Your task to perform on an android device: turn vacation reply on in the gmail app Image 0: 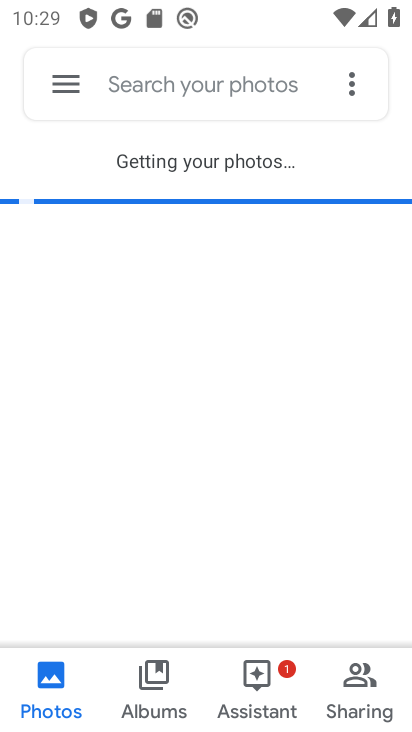
Step 0: press back button
Your task to perform on an android device: turn vacation reply on in the gmail app Image 1: 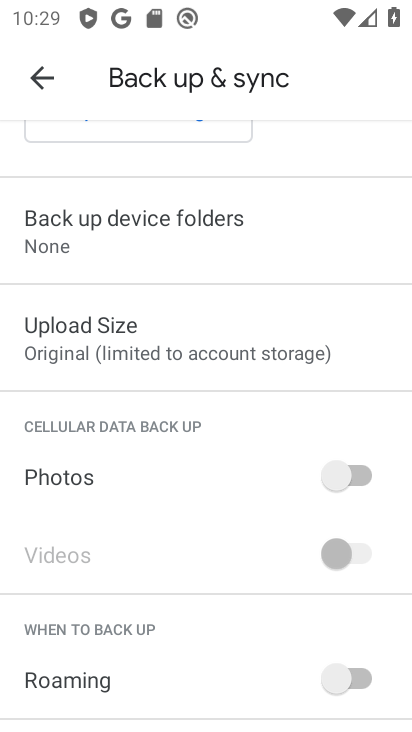
Step 1: click (36, 74)
Your task to perform on an android device: turn vacation reply on in the gmail app Image 2: 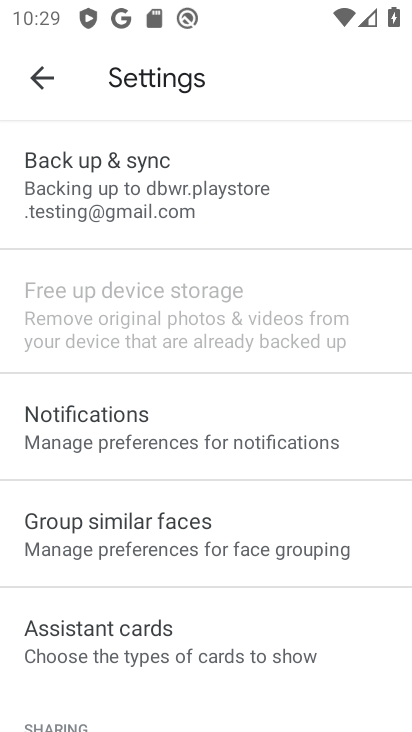
Step 2: click (39, 82)
Your task to perform on an android device: turn vacation reply on in the gmail app Image 3: 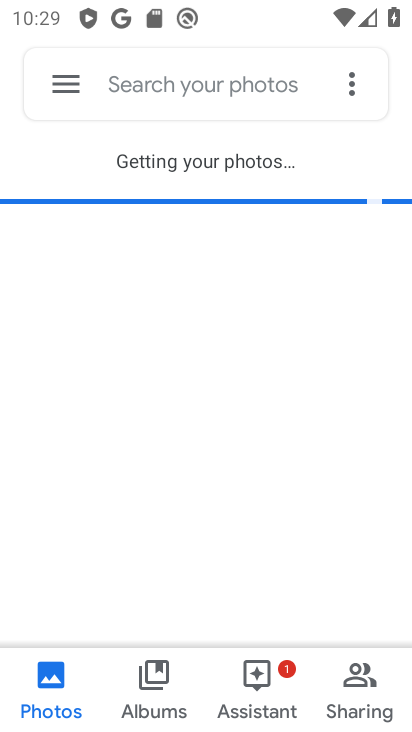
Step 3: press home button
Your task to perform on an android device: turn vacation reply on in the gmail app Image 4: 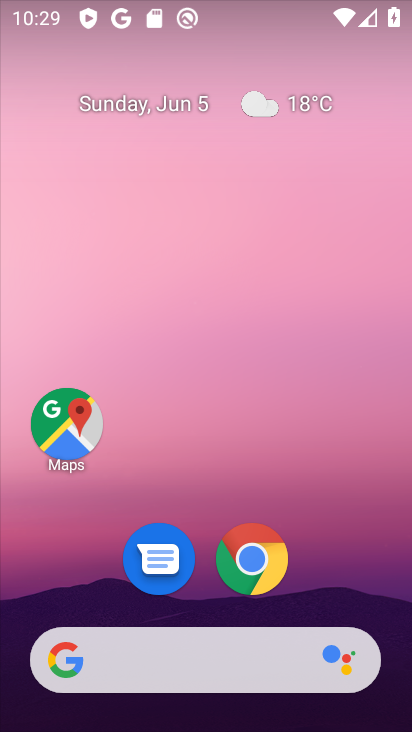
Step 4: press back button
Your task to perform on an android device: turn vacation reply on in the gmail app Image 5: 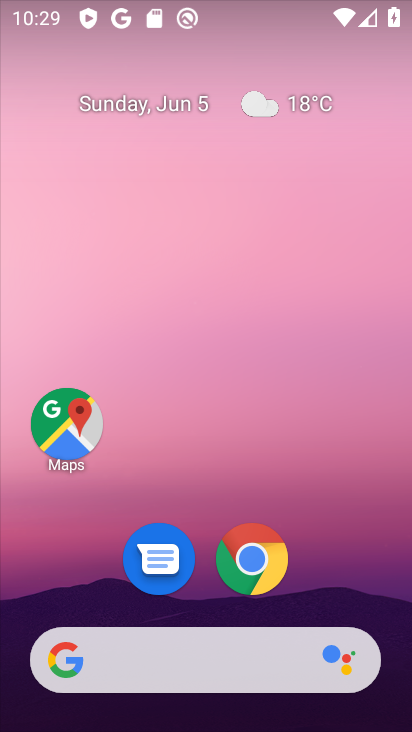
Step 5: drag from (267, 699) to (194, 159)
Your task to perform on an android device: turn vacation reply on in the gmail app Image 6: 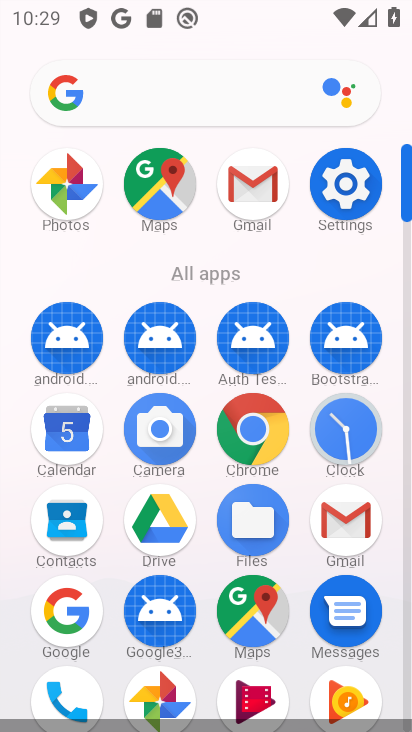
Step 6: click (323, 528)
Your task to perform on an android device: turn vacation reply on in the gmail app Image 7: 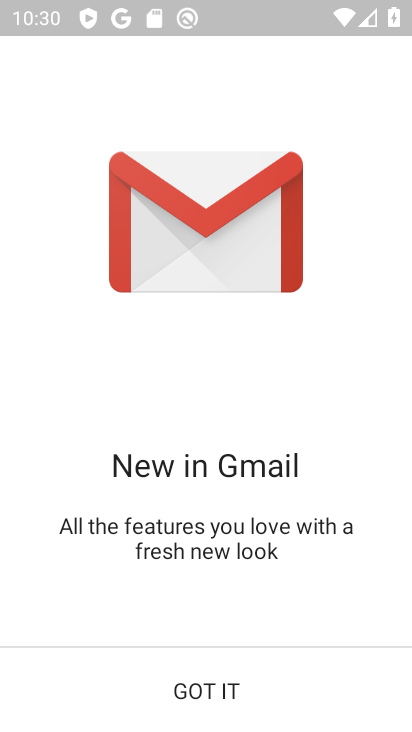
Step 7: click (208, 681)
Your task to perform on an android device: turn vacation reply on in the gmail app Image 8: 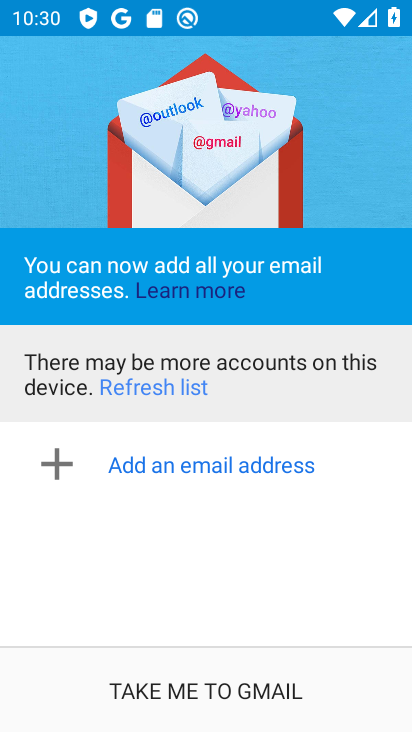
Step 8: click (208, 679)
Your task to perform on an android device: turn vacation reply on in the gmail app Image 9: 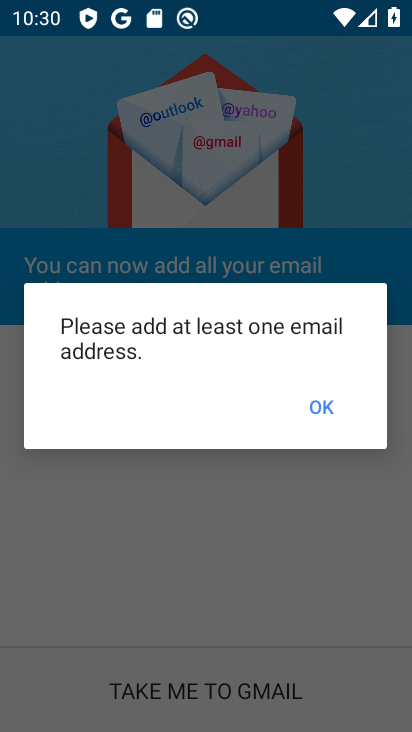
Step 9: click (214, 687)
Your task to perform on an android device: turn vacation reply on in the gmail app Image 10: 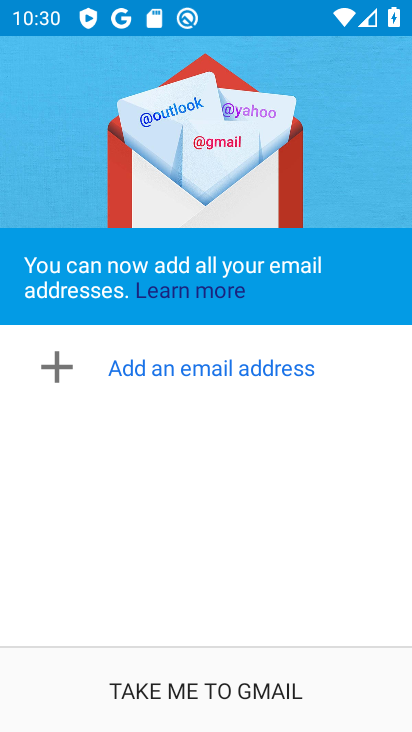
Step 10: click (315, 413)
Your task to perform on an android device: turn vacation reply on in the gmail app Image 11: 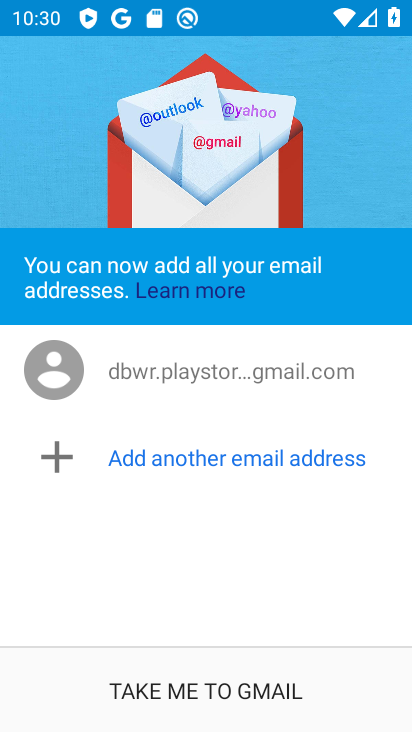
Step 11: click (194, 696)
Your task to perform on an android device: turn vacation reply on in the gmail app Image 12: 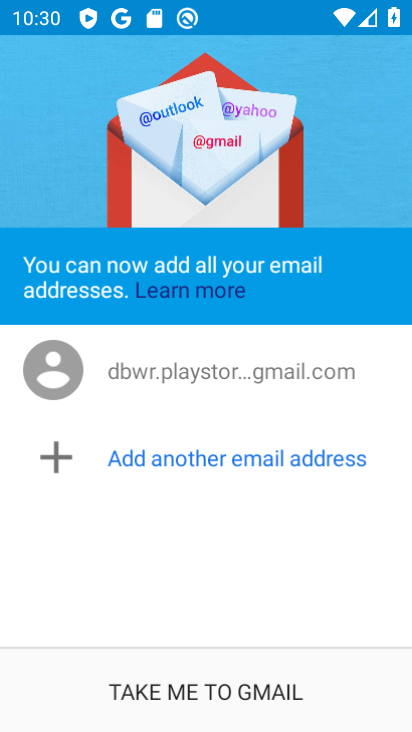
Step 12: click (194, 696)
Your task to perform on an android device: turn vacation reply on in the gmail app Image 13: 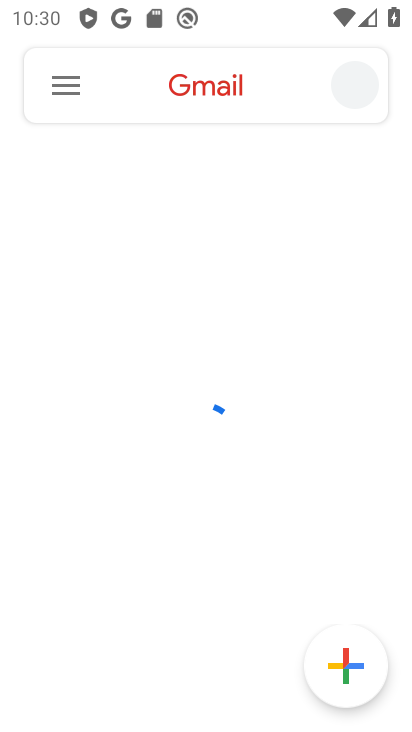
Step 13: click (69, 87)
Your task to perform on an android device: turn vacation reply on in the gmail app Image 14: 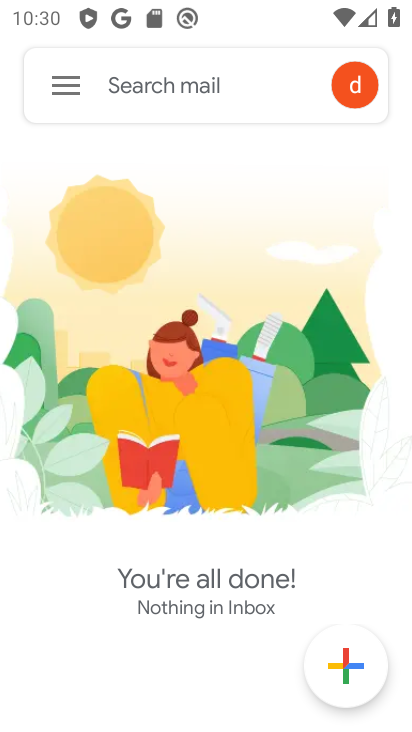
Step 14: click (61, 87)
Your task to perform on an android device: turn vacation reply on in the gmail app Image 15: 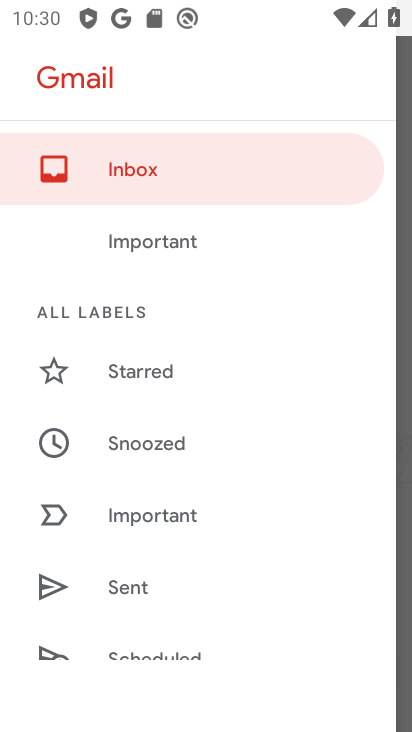
Step 15: drag from (167, 441) to (144, 124)
Your task to perform on an android device: turn vacation reply on in the gmail app Image 16: 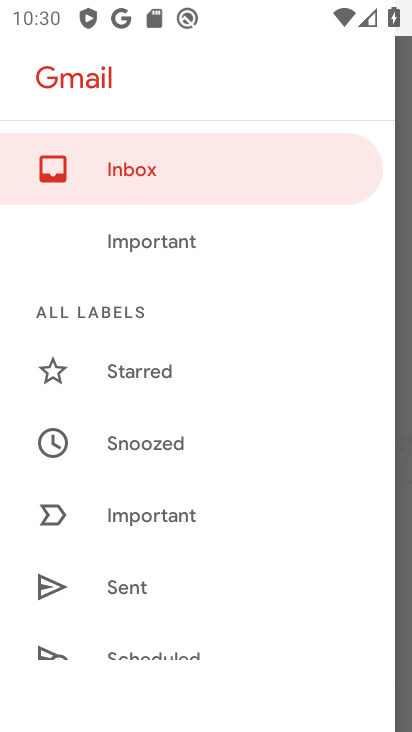
Step 16: drag from (185, 369) to (173, 178)
Your task to perform on an android device: turn vacation reply on in the gmail app Image 17: 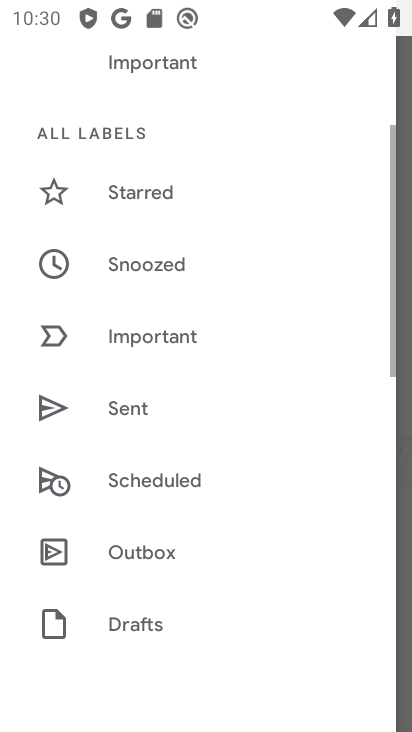
Step 17: drag from (166, 468) to (166, 104)
Your task to perform on an android device: turn vacation reply on in the gmail app Image 18: 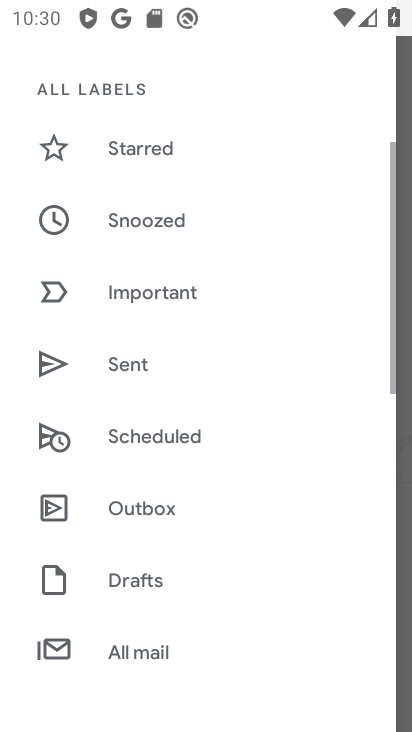
Step 18: drag from (215, 414) to (272, 13)
Your task to perform on an android device: turn vacation reply on in the gmail app Image 19: 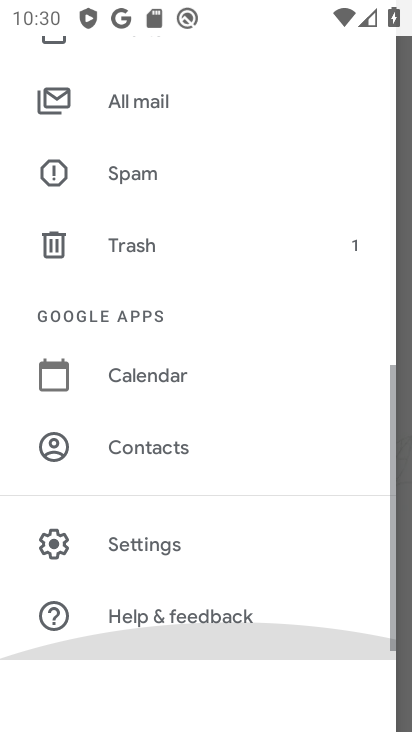
Step 19: drag from (225, 499) to (258, 89)
Your task to perform on an android device: turn vacation reply on in the gmail app Image 20: 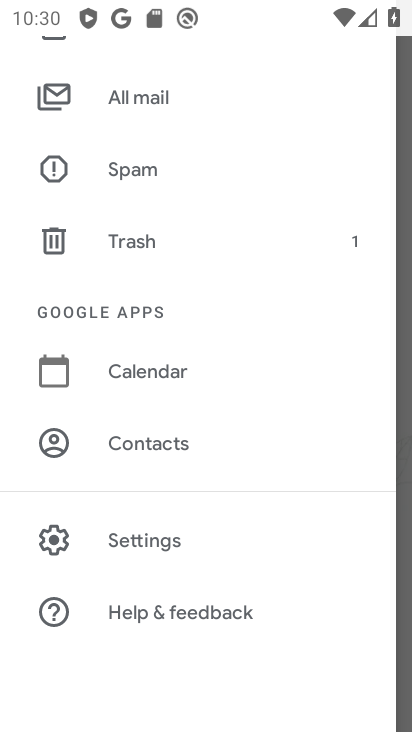
Step 20: click (139, 540)
Your task to perform on an android device: turn vacation reply on in the gmail app Image 21: 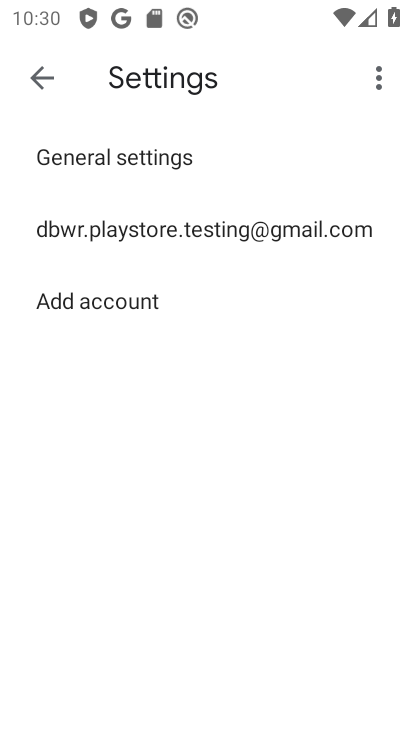
Step 21: click (136, 223)
Your task to perform on an android device: turn vacation reply on in the gmail app Image 22: 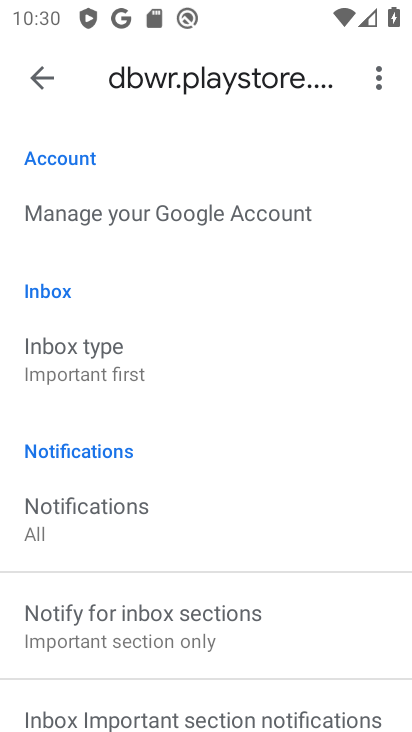
Step 22: drag from (99, 427) to (68, 95)
Your task to perform on an android device: turn vacation reply on in the gmail app Image 23: 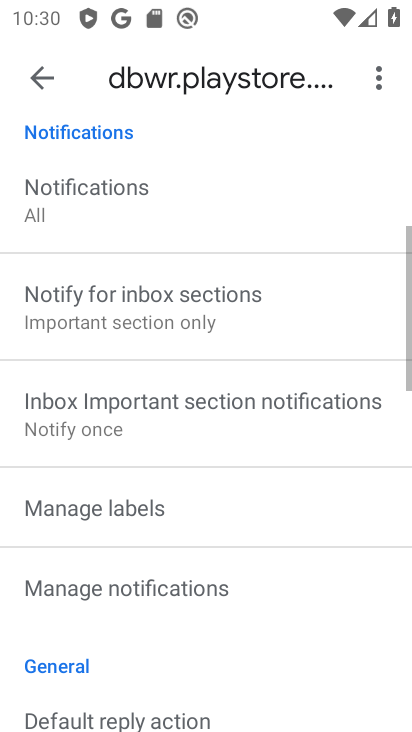
Step 23: drag from (134, 406) to (107, 196)
Your task to perform on an android device: turn vacation reply on in the gmail app Image 24: 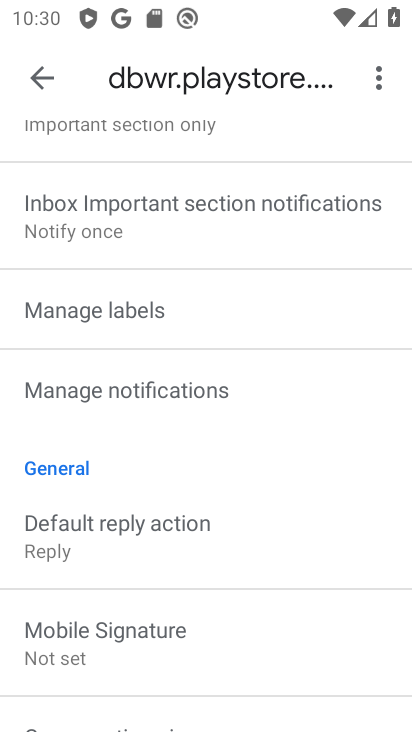
Step 24: drag from (193, 407) to (175, 169)
Your task to perform on an android device: turn vacation reply on in the gmail app Image 25: 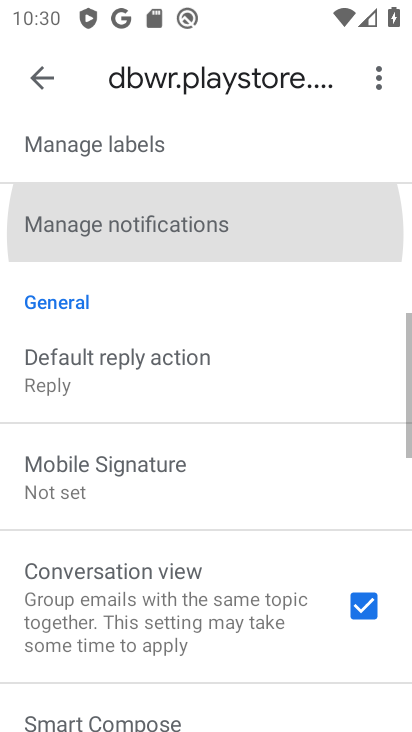
Step 25: drag from (204, 454) to (195, 168)
Your task to perform on an android device: turn vacation reply on in the gmail app Image 26: 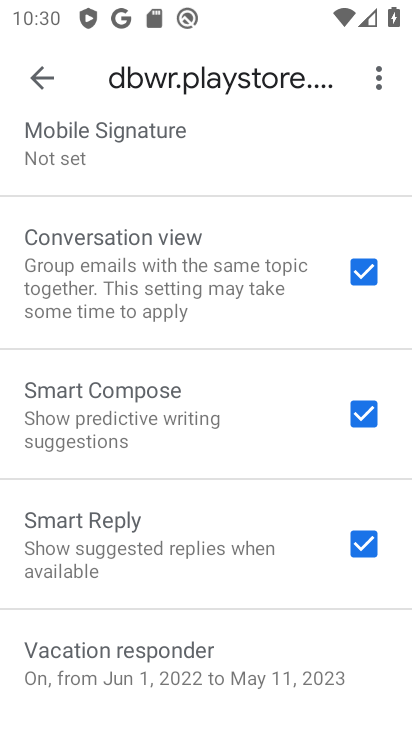
Step 26: click (140, 657)
Your task to perform on an android device: turn vacation reply on in the gmail app Image 27: 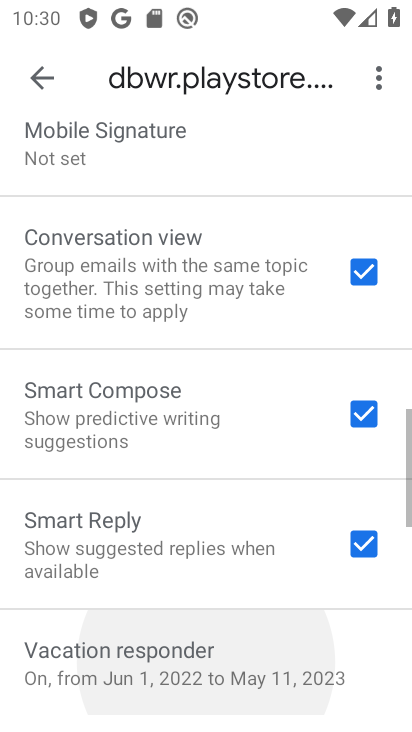
Step 27: click (140, 657)
Your task to perform on an android device: turn vacation reply on in the gmail app Image 28: 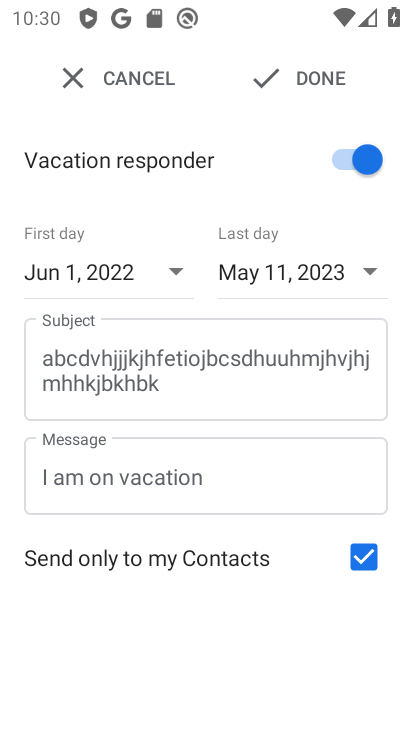
Step 28: task complete